Your task to perform on an android device: turn off airplane mode Image 0: 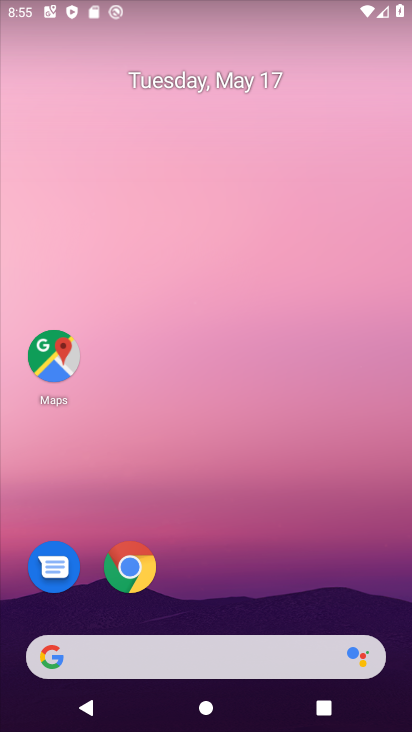
Step 0: drag from (236, 500) to (221, 30)
Your task to perform on an android device: turn off airplane mode Image 1: 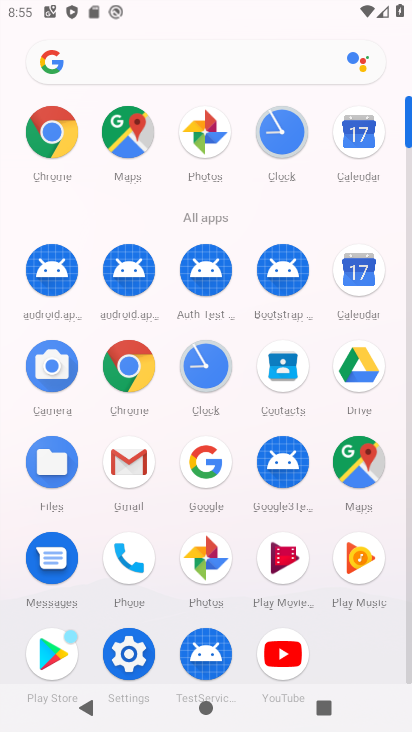
Step 1: click (131, 654)
Your task to perform on an android device: turn off airplane mode Image 2: 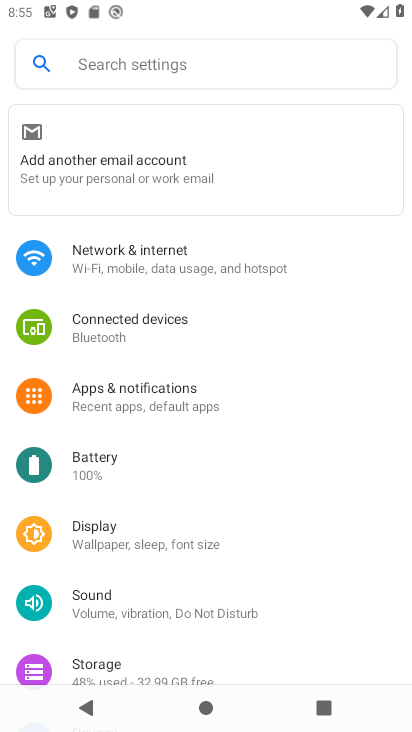
Step 2: click (119, 258)
Your task to perform on an android device: turn off airplane mode Image 3: 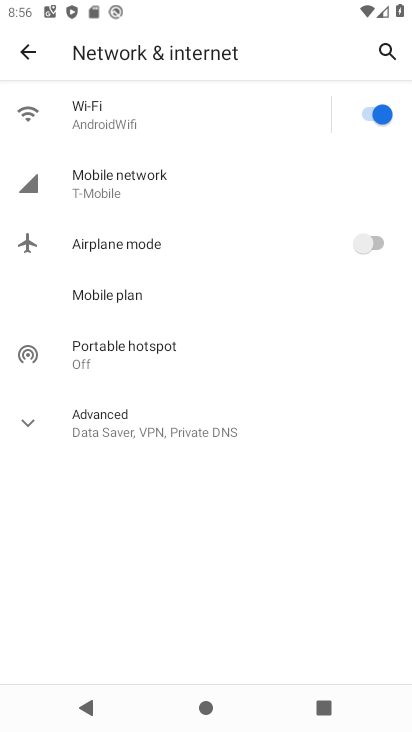
Step 3: task complete